Your task to perform on an android device: Find coffee shops on Maps Image 0: 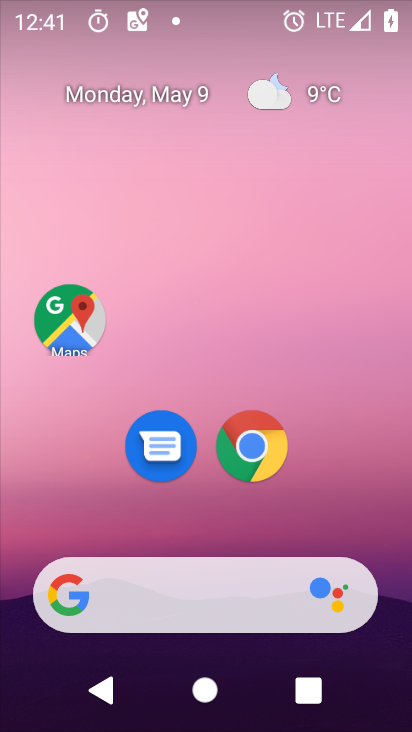
Step 0: click (55, 311)
Your task to perform on an android device: Find coffee shops on Maps Image 1: 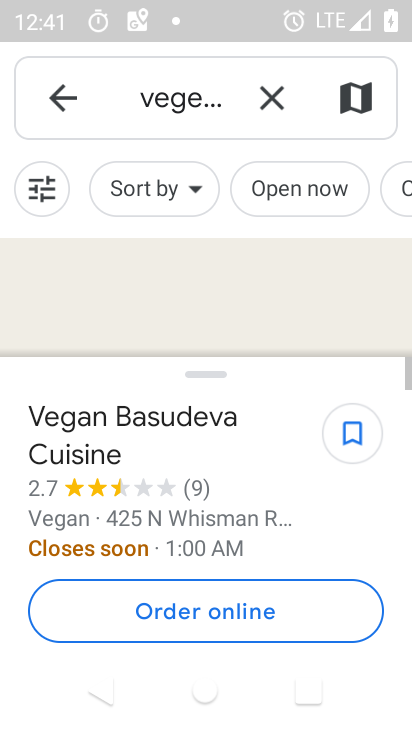
Step 1: click (271, 100)
Your task to perform on an android device: Find coffee shops on Maps Image 2: 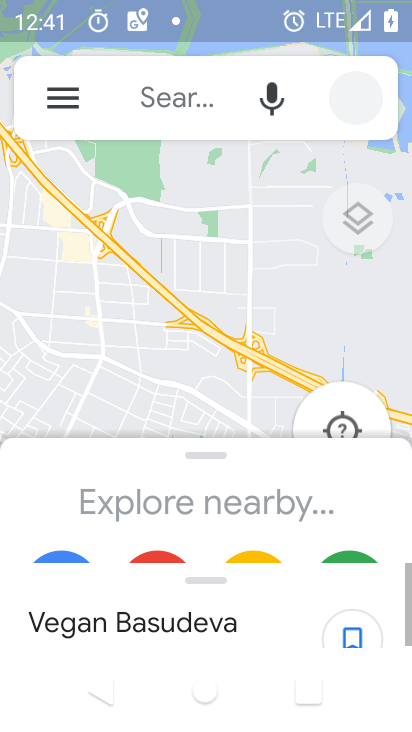
Step 2: click (111, 99)
Your task to perform on an android device: Find coffee shops on Maps Image 3: 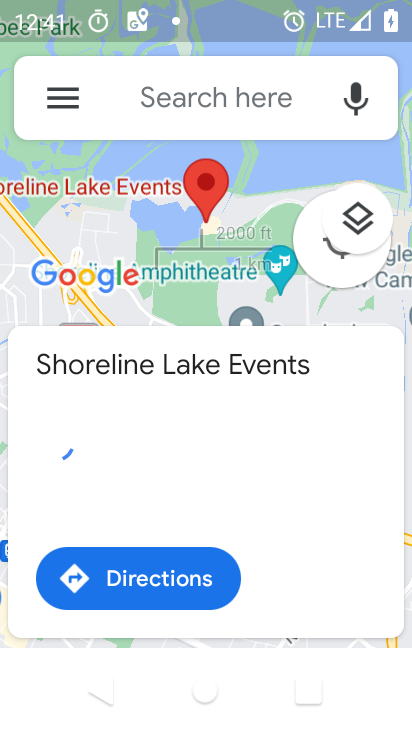
Step 3: click (139, 95)
Your task to perform on an android device: Find coffee shops on Maps Image 4: 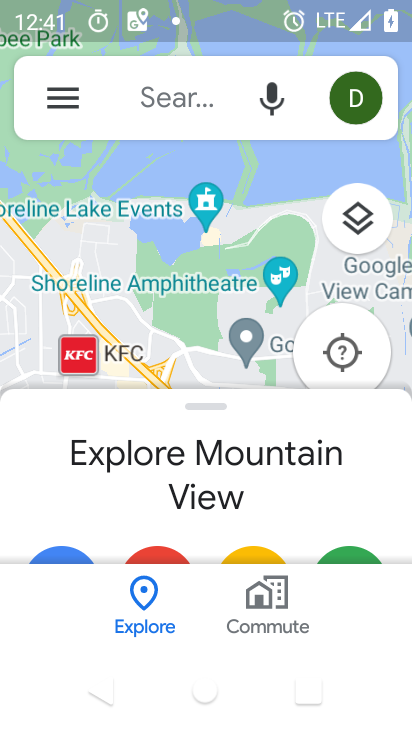
Step 4: click (157, 98)
Your task to perform on an android device: Find coffee shops on Maps Image 5: 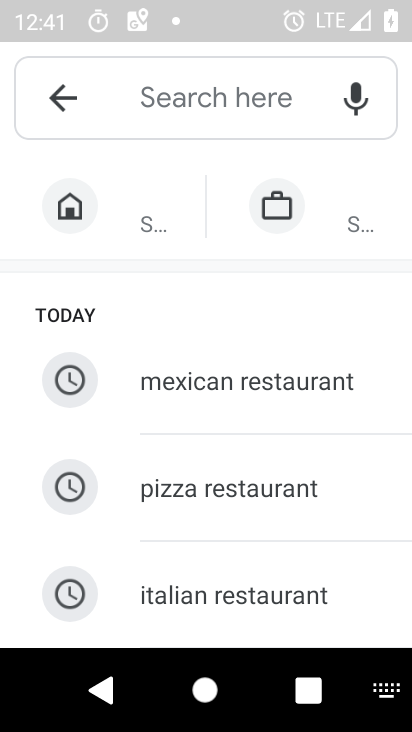
Step 5: type "coffee shops"
Your task to perform on an android device: Find coffee shops on Maps Image 6: 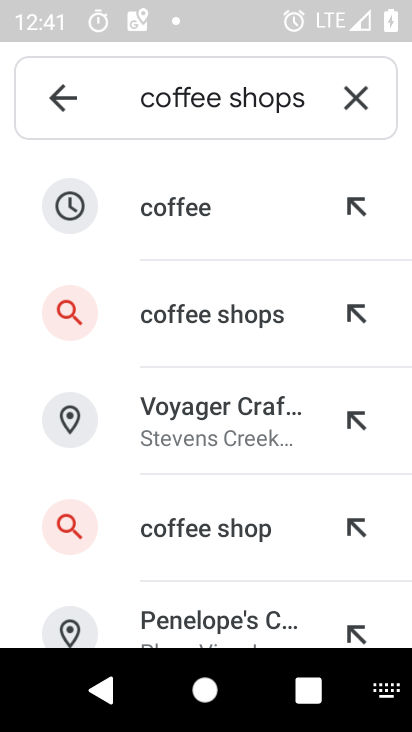
Step 6: click (262, 302)
Your task to perform on an android device: Find coffee shops on Maps Image 7: 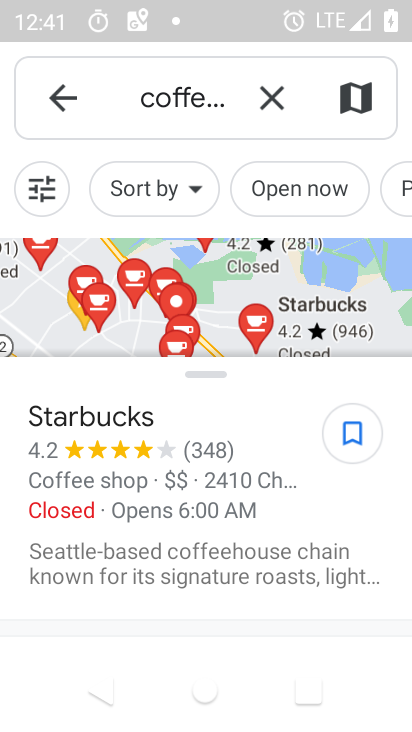
Step 7: task complete